Your task to perform on an android device: turn on notifications settings in the gmail app Image 0: 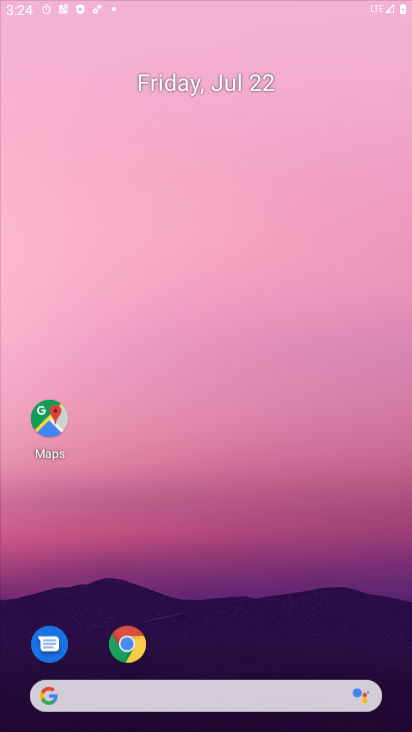
Step 0: press home button
Your task to perform on an android device: turn on notifications settings in the gmail app Image 1: 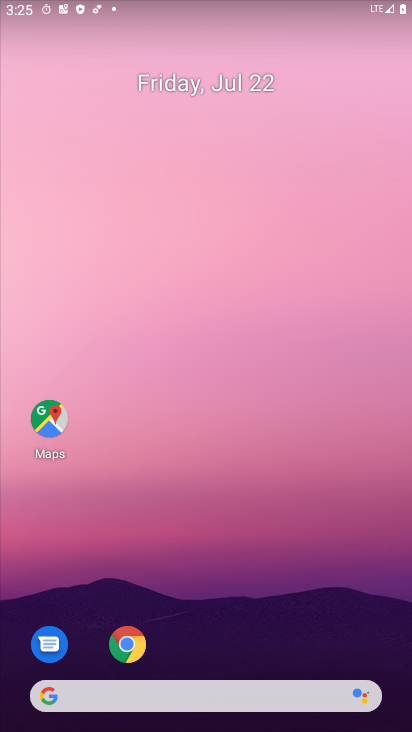
Step 1: drag from (243, 653) to (263, 203)
Your task to perform on an android device: turn on notifications settings in the gmail app Image 2: 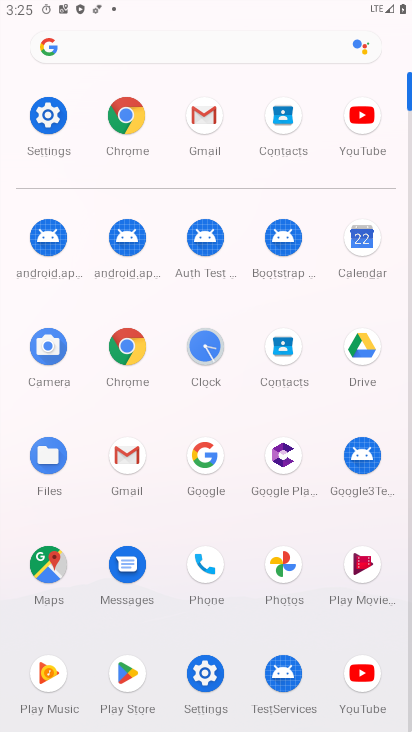
Step 2: click (206, 119)
Your task to perform on an android device: turn on notifications settings in the gmail app Image 3: 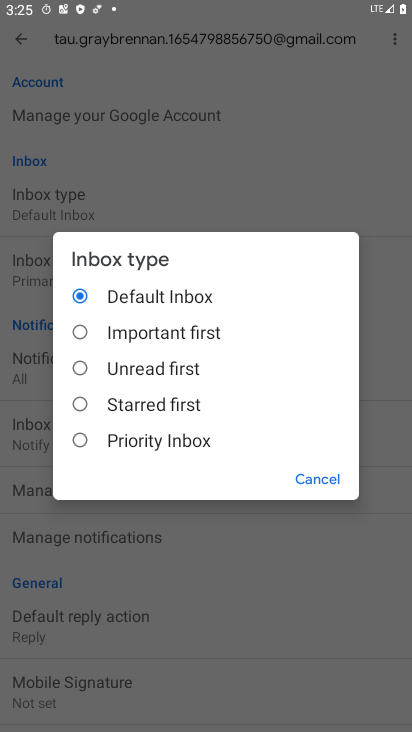
Step 3: click (314, 485)
Your task to perform on an android device: turn on notifications settings in the gmail app Image 4: 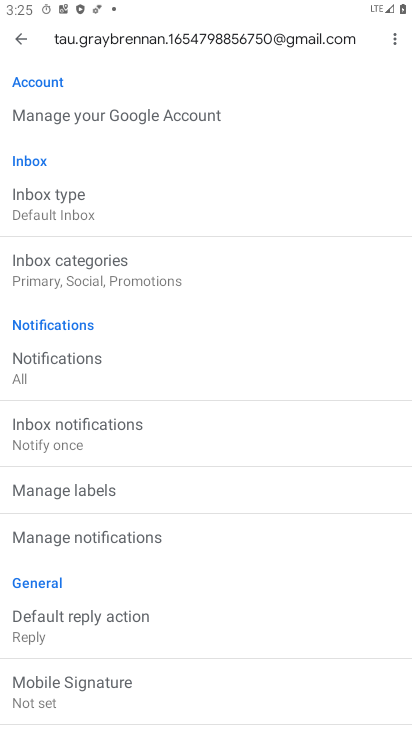
Step 4: click (53, 541)
Your task to perform on an android device: turn on notifications settings in the gmail app Image 5: 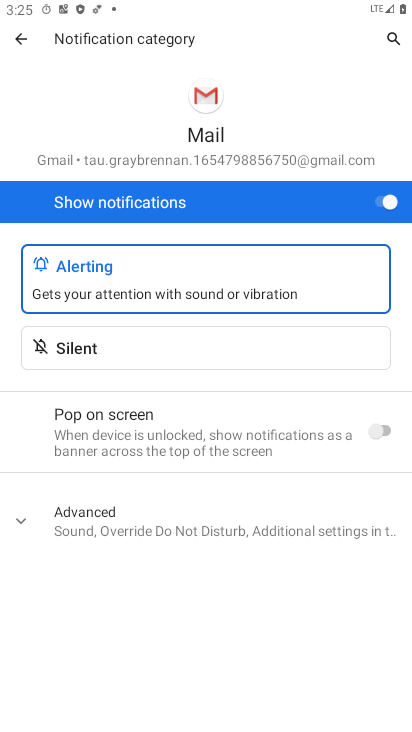
Step 5: task complete